Your task to perform on an android device: check out phone information Image 0: 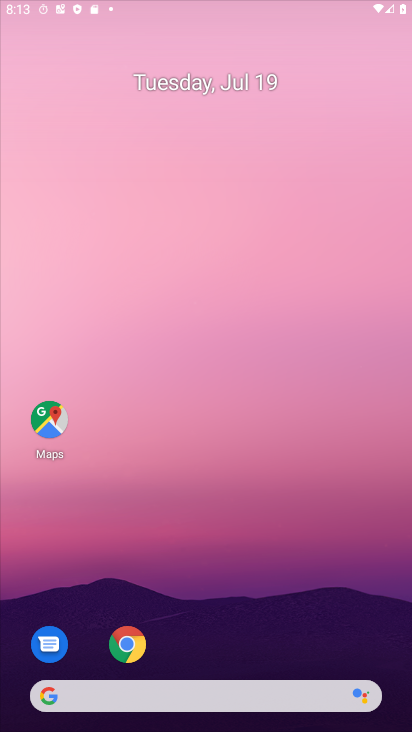
Step 0: drag from (15, 698) to (194, 222)
Your task to perform on an android device: check out phone information Image 1: 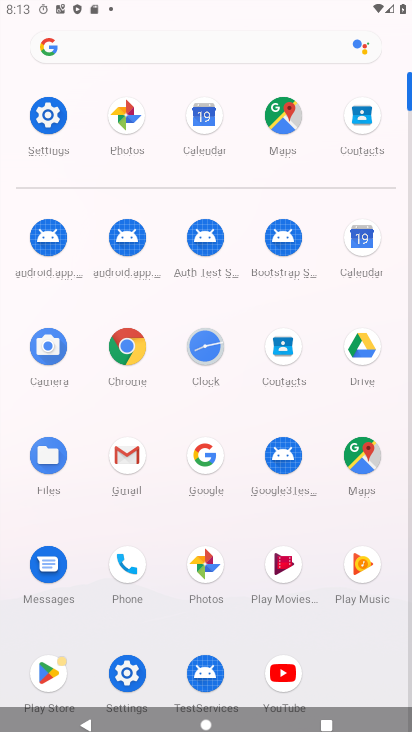
Step 1: click (130, 563)
Your task to perform on an android device: check out phone information Image 2: 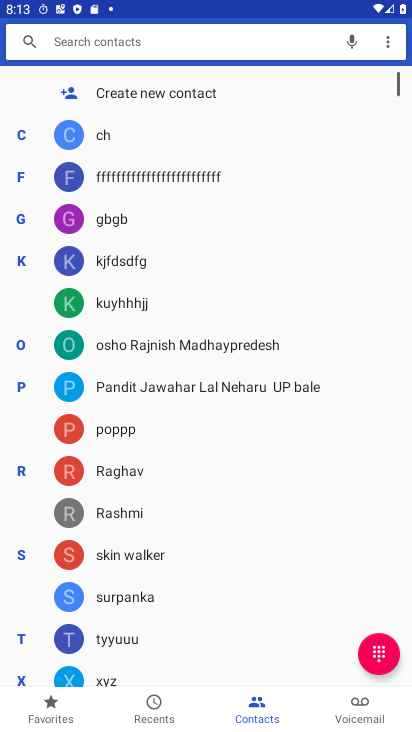
Step 2: click (167, 711)
Your task to perform on an android device: check out phone information Image 3: 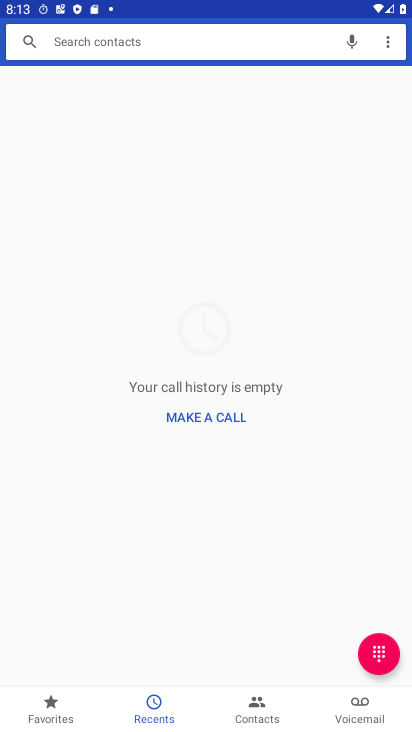
Step 3: task complete